Your task to perform on an android device: refresh tabs in the chrome app Image 0: 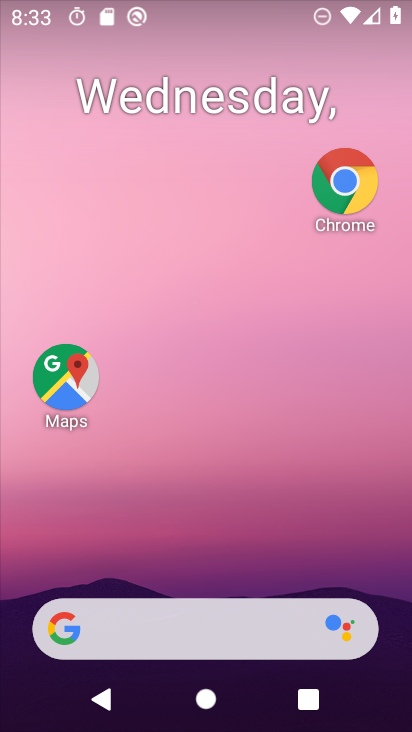
Step 0: drag from (258, 639) to (179, 97)
Your task to perform on an android device: refresh tabs in the chrome app Image 1: 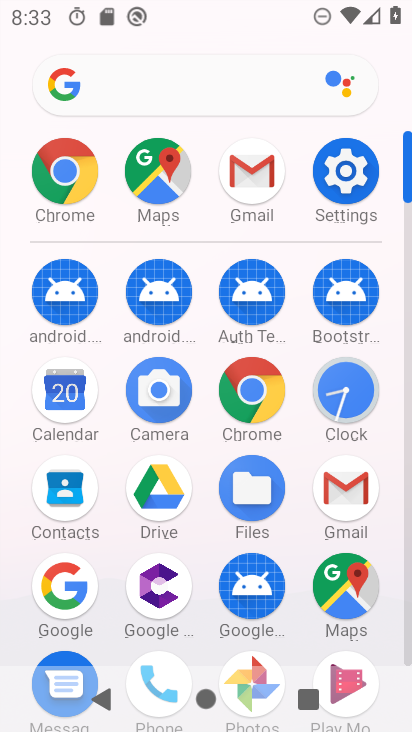
Step 1: click (67, 176)
Your task to perform on an android device: refresh tabs in the chrome app Image 2: 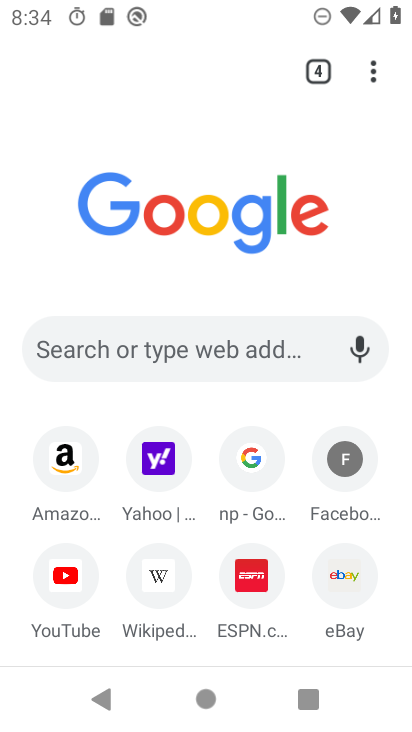
Step 2: click (370, 66)
Your task to perform on an android device: refresh tabs in the chrome app Image 3: 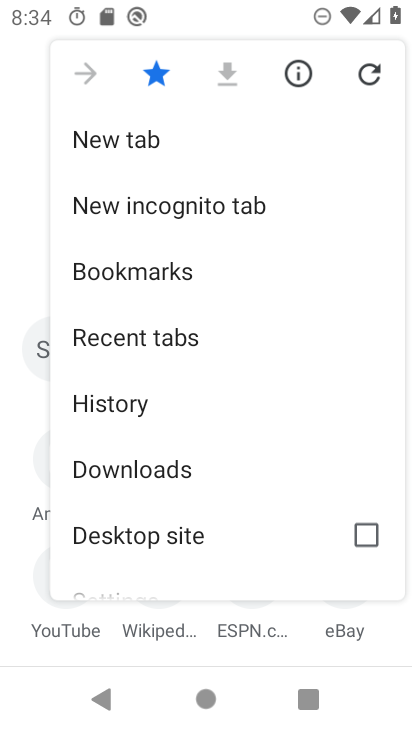
Step 3: click (368, 68)
Your task to perform on an android device: refresh tabs in the chrome app Image 4: 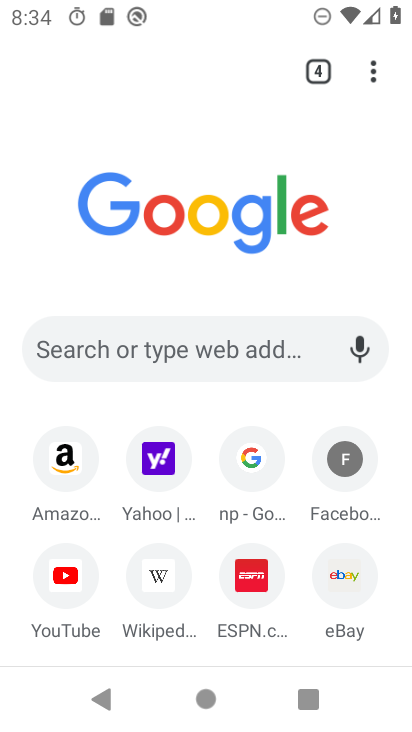
Step 4: task complete